Your task to perform on an android device: turn off airplane mode Image 0: 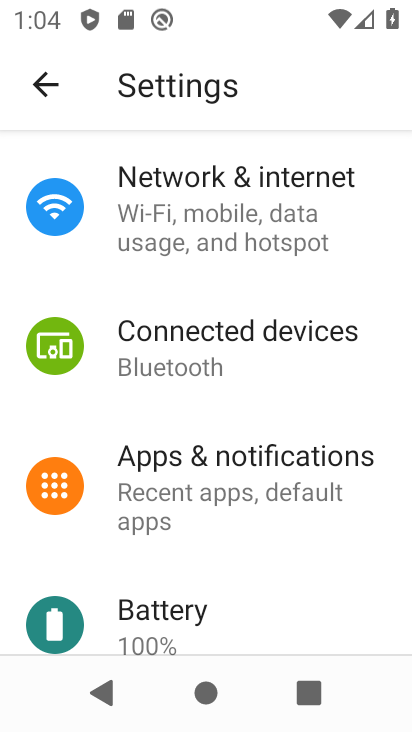
Step 0: drag from (298, 281) to (257, 455)
Your task to perform on an android device: turn off airplane mode Image 1: 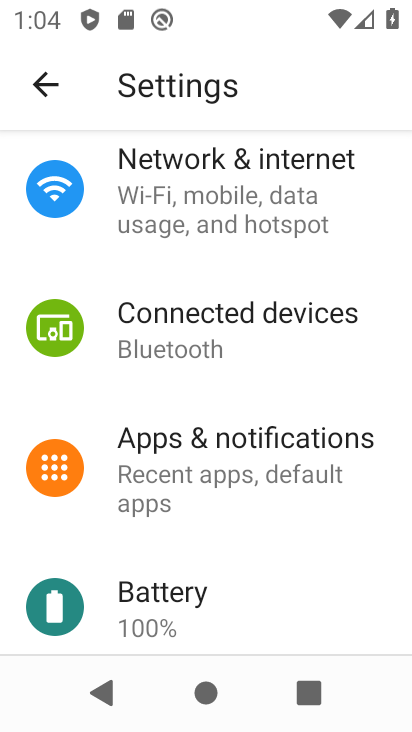
Step 1: click (200, 232)
Your task to perform on an android device: turn off airplane mode Image 2: 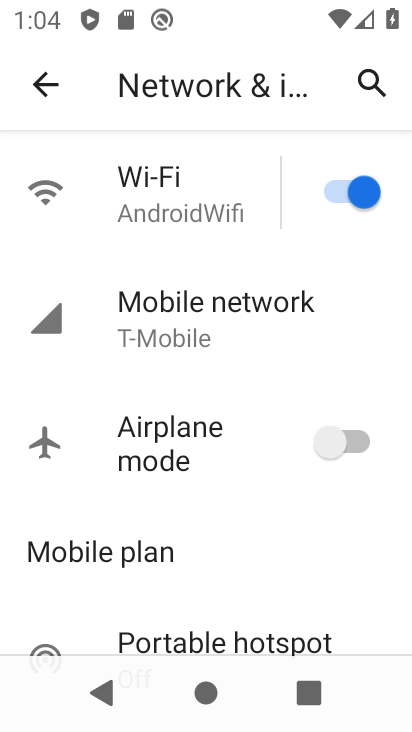
Step 2: task complete